Your task to perform on an android device: Show the shopping cart on target. Add logitech g910 to the cart on target, then select checkout. Image 0: 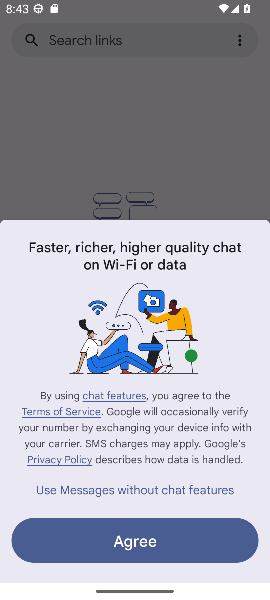
Step 0: press home button
Your task to perform on an android device: Show the shopping cart on target. Add logitech g910 to the cart on target, then select checkout. Image 1: 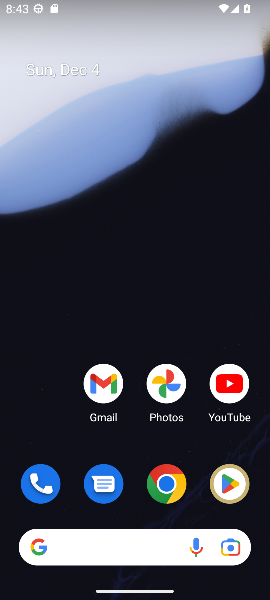
Step 1: click (173, 488)
Your task to perform on an android device: Show the shopping cart on target. Add logitech g910 to the cart on target, then select checkout. Image 2: 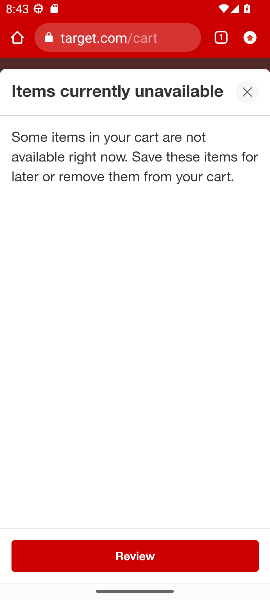
Step 2: click (247, 91)
Your task to perform on an android device: Show the shopping cart on target. Add logitech g910 to the cart on target, then select checkout. Image 3: 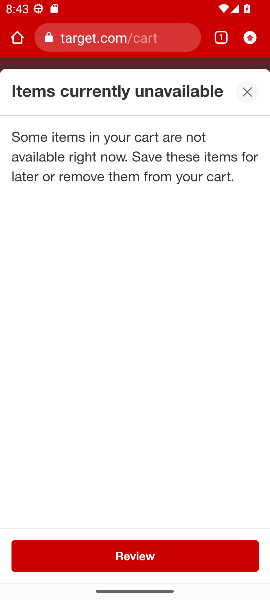
Step 3: click (249, 95)
Your task to perform on an android device: Show the shopping cart on target. Add logitech g910 to the cart on target, then select checkout. Image 4: 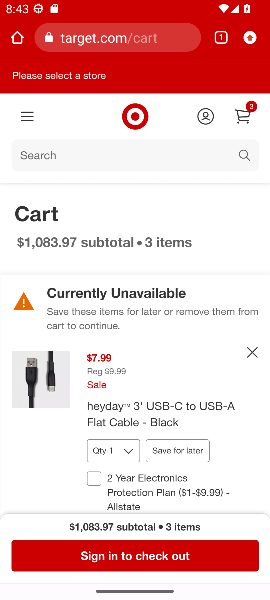
Step 4: click (45, 150)
Your task to perform on an android device: Show the shopping cart on target. Add logitech g910 to the cart on target, then select checkout. Image 5: 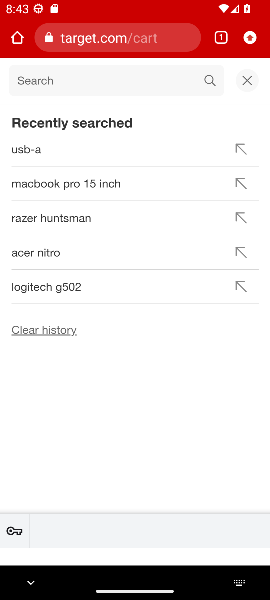
Step 5: click (63, 75)
Your task to perform on an android device: Show the shopping cart on target. Add logitech g910 to the cart on target, then select checkout. Image 6: 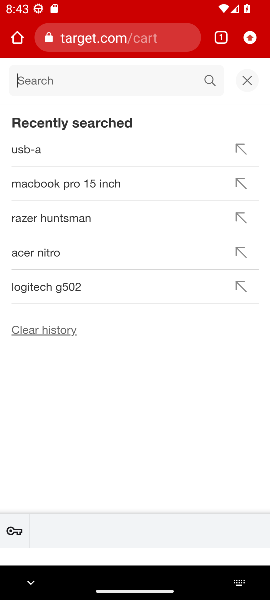
Step 6: type " logitech g910 "
Your task to perform on an android device: Show the shopping cart on target. Add logitech g910 to the cart on target, then select checkout. Image 7: 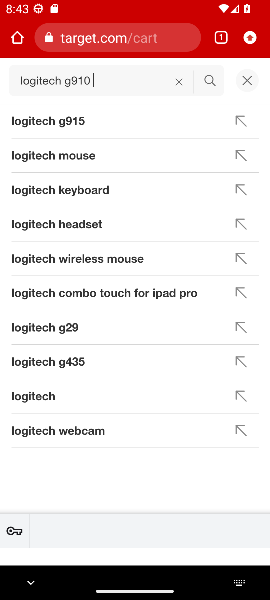
Step 7: click (211, 79)
Your task to perform on an android device: Show the shopping cart on target. Add logitech g910 to the cart on target, then select checkout. Image 8: 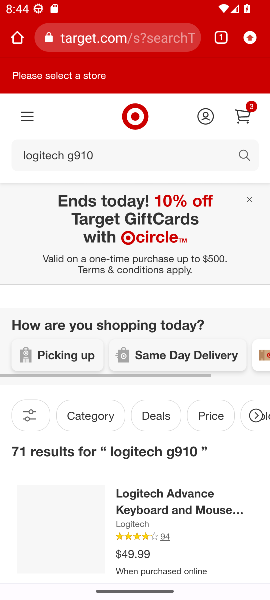
Step 8: task complete